Your task to perform on an android device: turn on airplane mode Image 0: 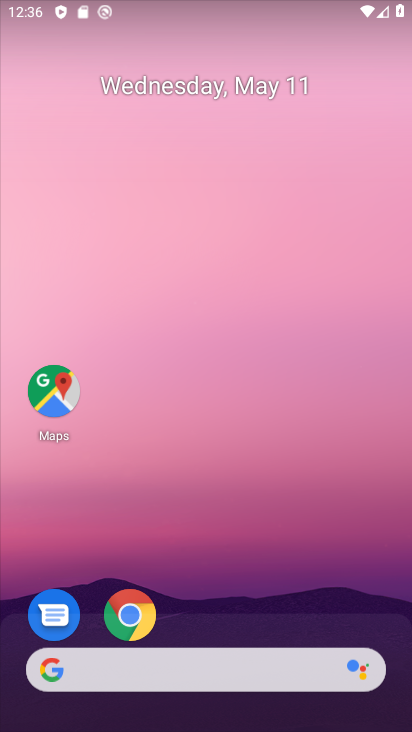
Step 0: drag from (359, 555) to (346, 67)
Your task to perform on an android device: turn on airplane mode Image 1: 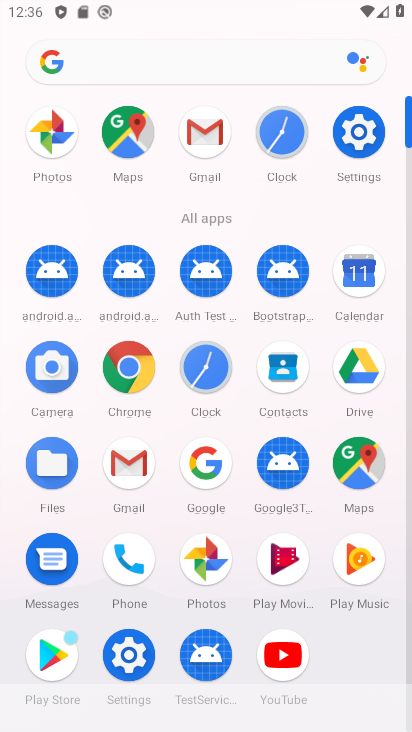
Step 1: drag from (363, 605) to (358, 147)
Your task to perform on an android device: turn on airplane mode Image 2: 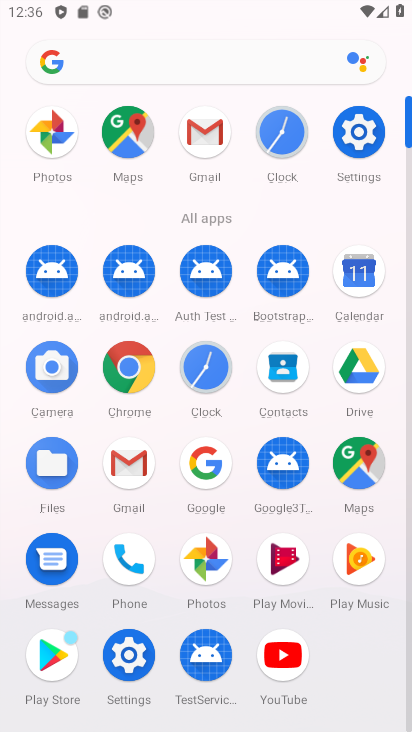
Step 2: click (119, 672)
Your task to perform on an android device: turn on airplane mode Image 3: 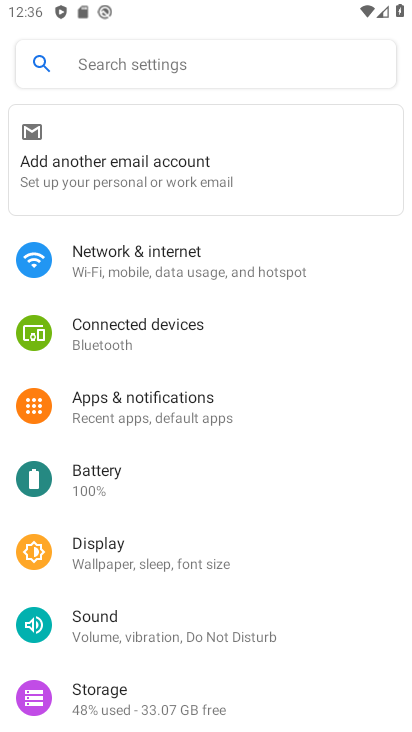
Step 3: click (226, 252)
Your task to perform on an android device: turn on airplane mode Image 4: 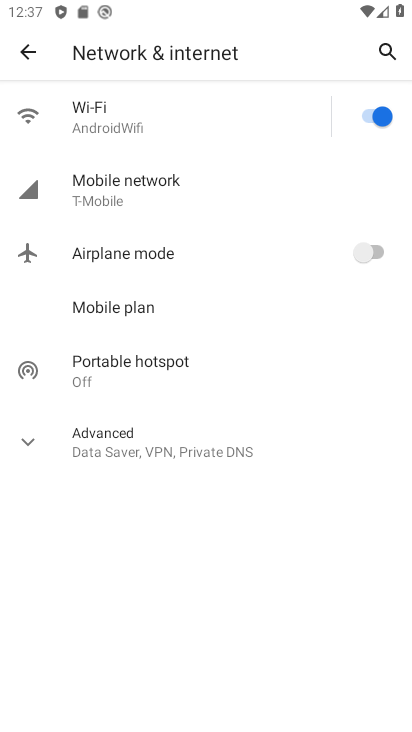
Step 4: click (374, 254)
Your task to perform on an android device: turn on airplane mode Image 5: 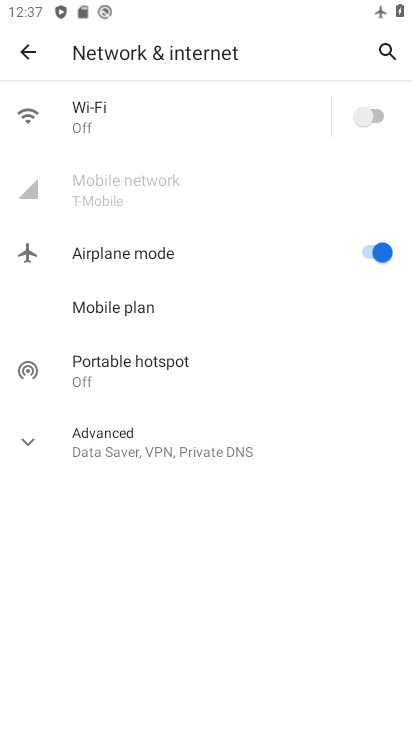
Step 5: task complete